Your task to perform on an android device: toggle sleep mode Image 0: 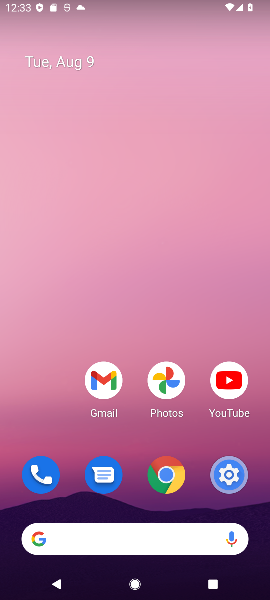
Step 0: click (224, 471)
Your task to perform on an android device: toggle sleep mode Image 1: 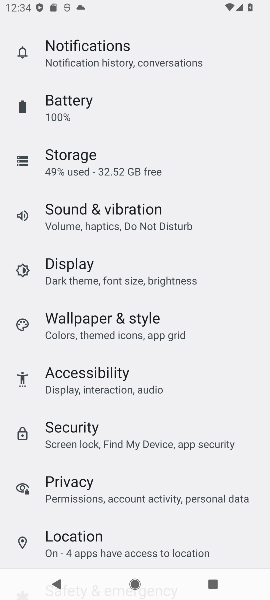
Step 1: click (152, 276)
Your task to perform on an android device: toggle sleep mode Image 2: 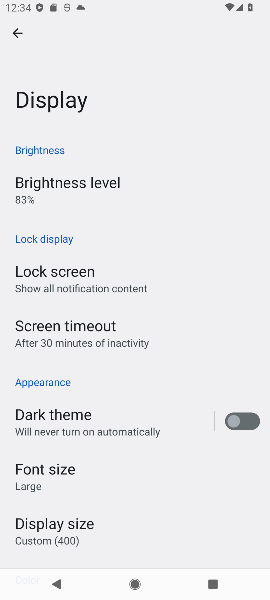
Step 2: task complete